Your task to perform on an android device: turn on improve location accuracy Image 0: 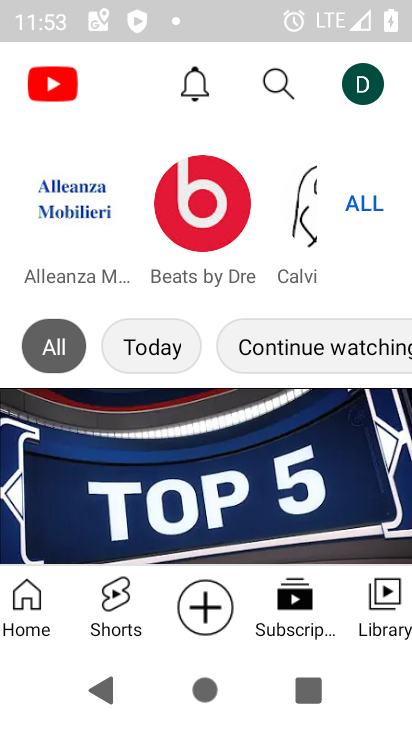
Step 0: press home button
Your task to perform on an android device: turn on improve location accuracy Image 1: 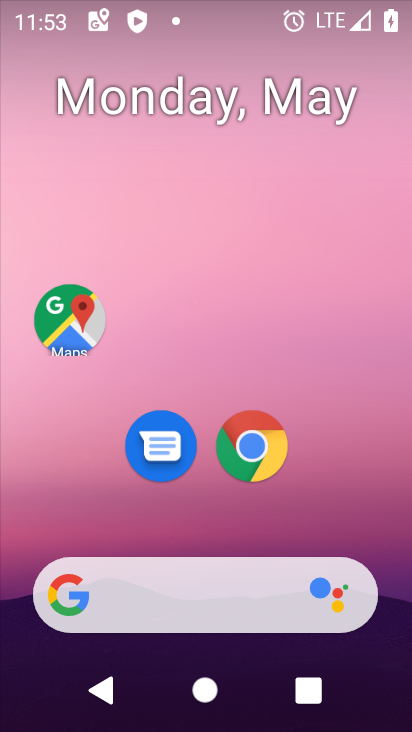
Step 1: drag from (340, 484) to (255, 103)
Your task to perform on an android device: turn on improve location accuracy Image 2: 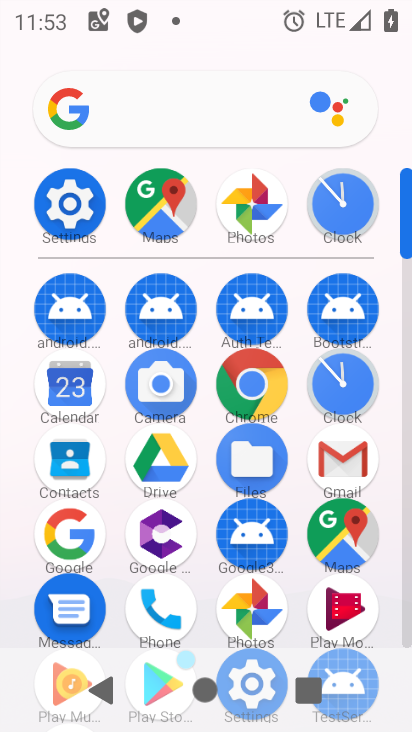
Step 2: click (68, 202)
Your task to perform on an android device: turn on improve location accuracy Image 3: 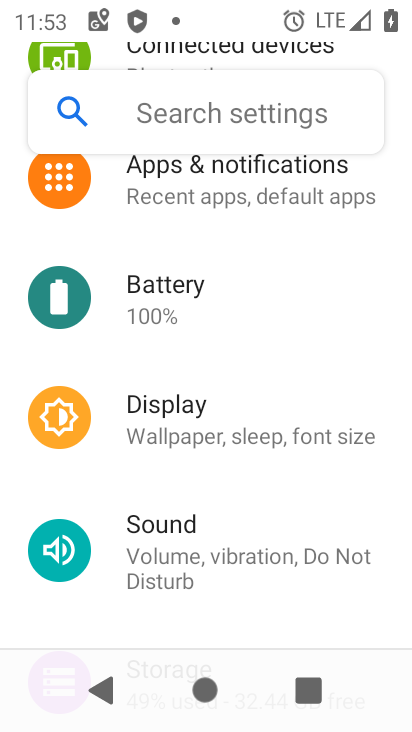
Step 3: drag from (232, 495) to (208, 238)
Your task to perform on an android device: turn on improve location accuracy Image 4: 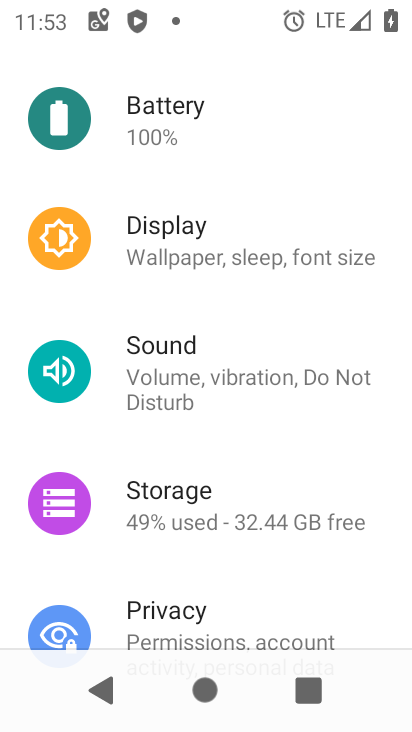
Step 4: drag from (211, 577) to (213, 191)
Your task to perform on an android device: turn on improve location accuracy Image 5: 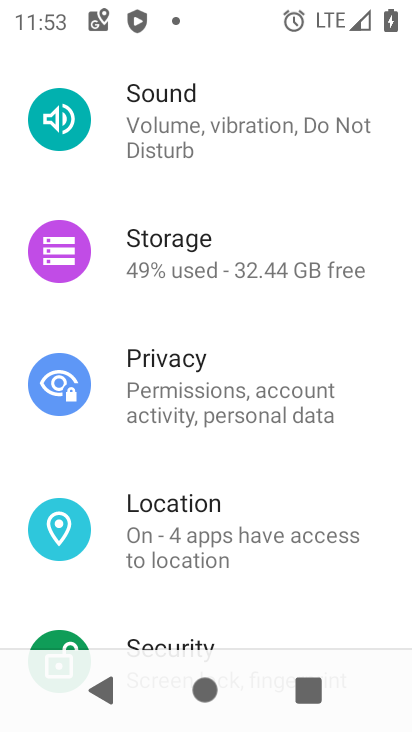
Step 5: click (180, 497)
Your task to perform on an android device: turn on improve location accuracy Image 6: 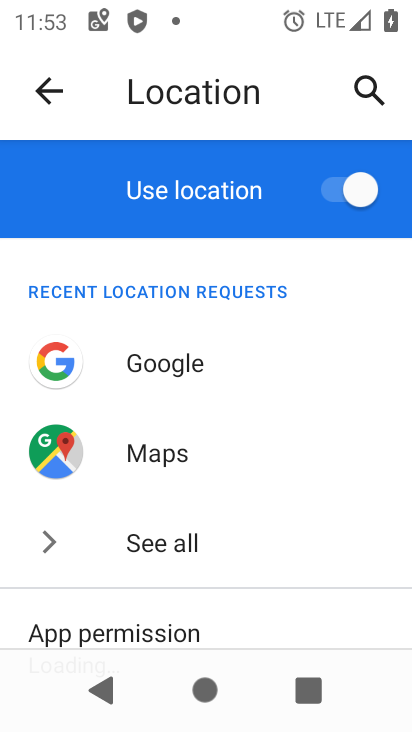
Step 6: drag from (232, 560) to (184, 161)
Your task to perform on an android device: turn on improve location accuracy Image 7: 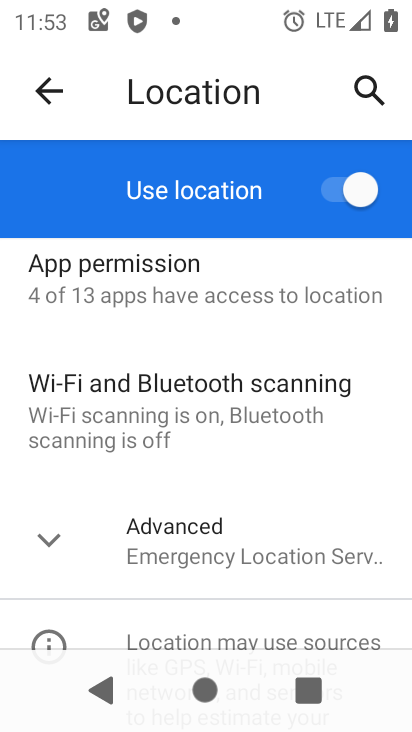
Step 7: click (57, 543)
Your task to perform on an android device: turn on improve location accuracy Image 8: 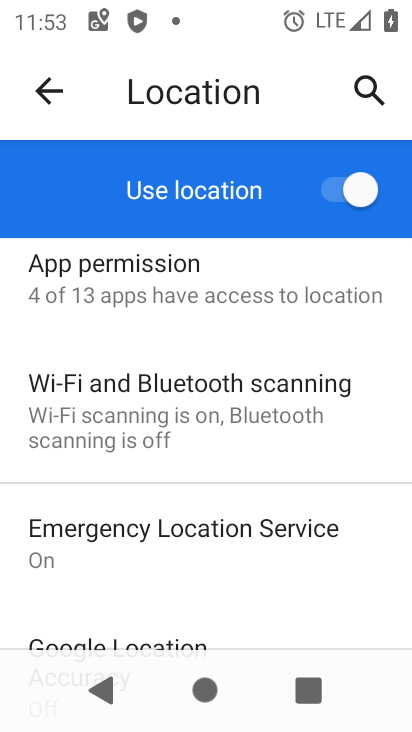
Step 8: drag from (254, 599) to (236, 368)
Your task to perform on an android device: turn on improve location accuracy Image 9: 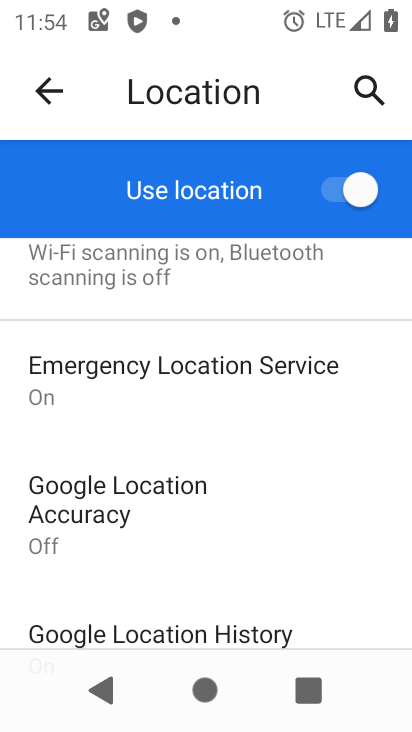
Step 9: click (91, 495)
Your task to perform on an android device: turn on improve location accuracy Image 10: 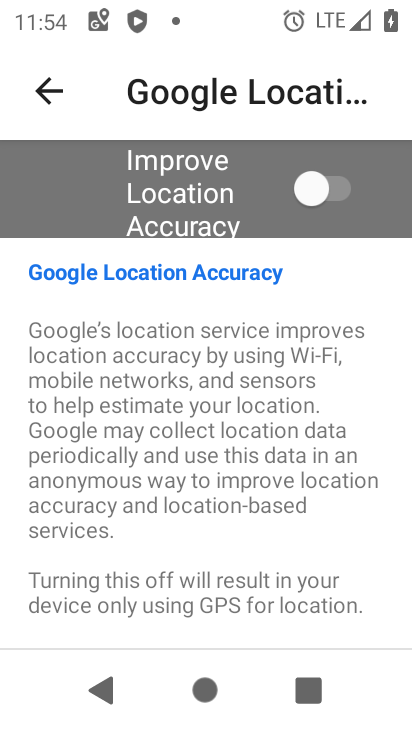
Step 10: click (323, 189)
Your task to perform on an android device: turn on improve location accuracy Image 11: 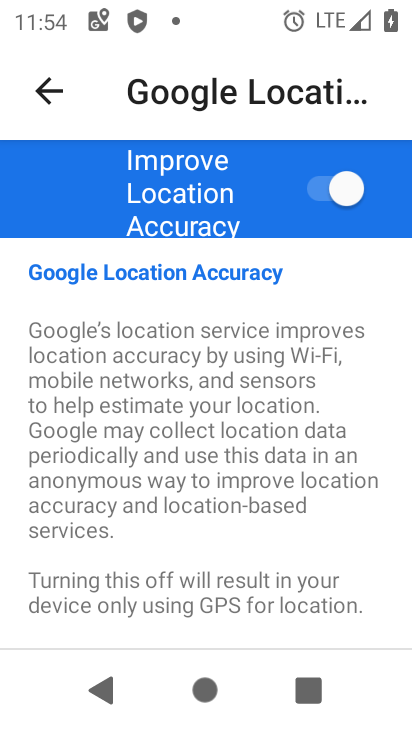
Step 11: task complete